Your task to perform on an android device: stop showing notifications on the lock screen Image 0: 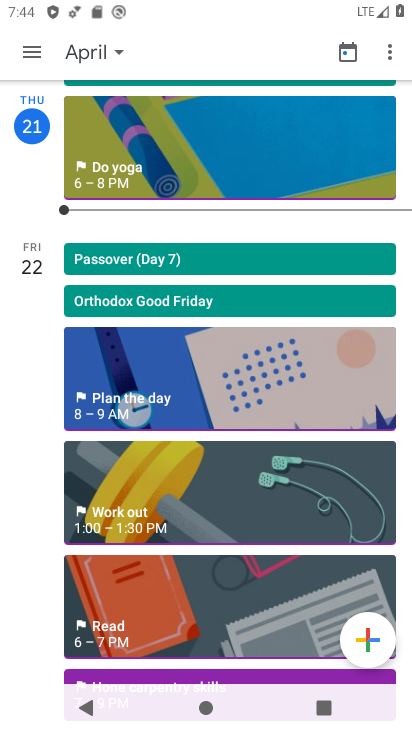
Step 0: press home button
Your task to perform on an android device: stop showing notifications on the lock screen Image 1: 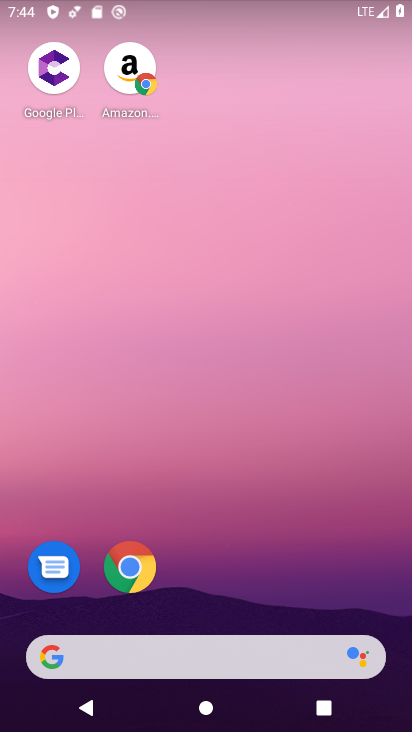
Step 1: drag from (253, 560) to (323, 75)
Your task to perform on an android device: stop showing notifications on the lock screen Image 2: 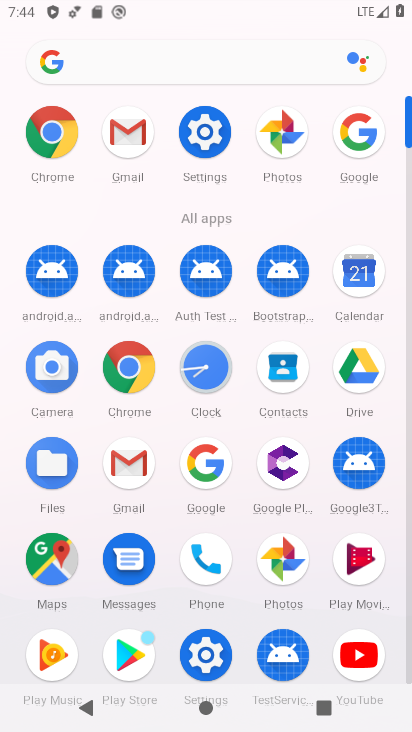
Step 2: click (204, 130)
Your task to perform on an android device: stop showing notifications on the lock screen Image 3: 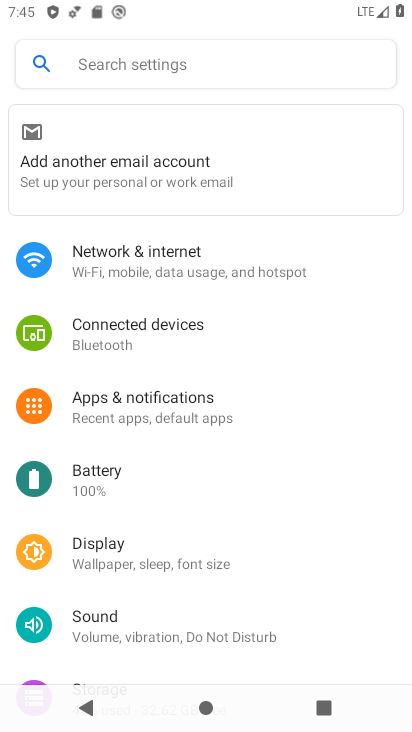
Step 3: click (178, 403)
Your task to perform on an android device: stop showing notifications on the lock screen Image 4: 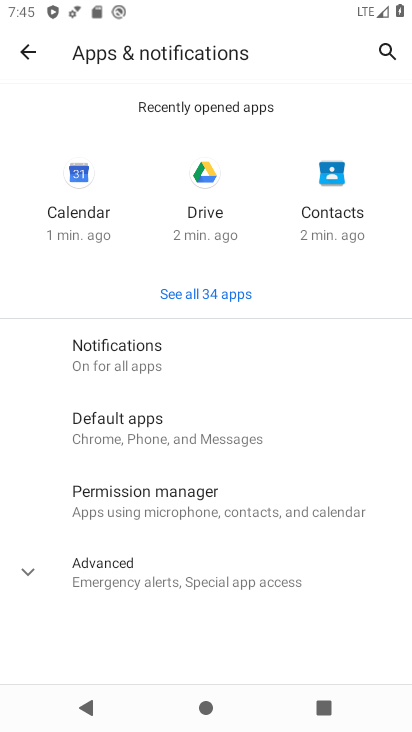
Step 4: click (141, 346)
Your task to perform on an android device: stop showing notifications on the lock screen Image 5: 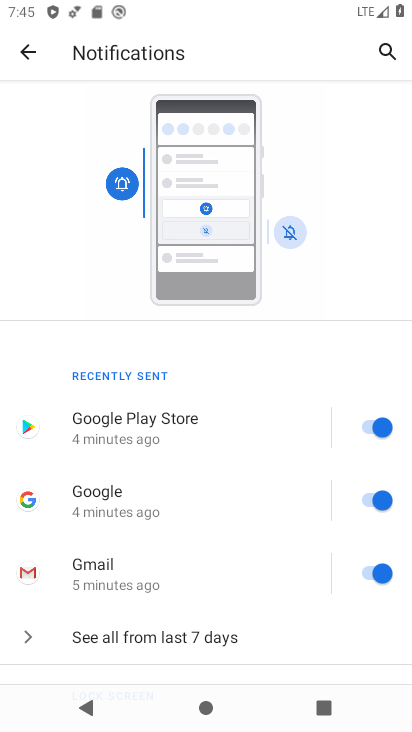
Step 5: drag from (205, 588) to (269, 347)
Your task to perform on an android device: stop showing notifications on the lock screen Image 6: 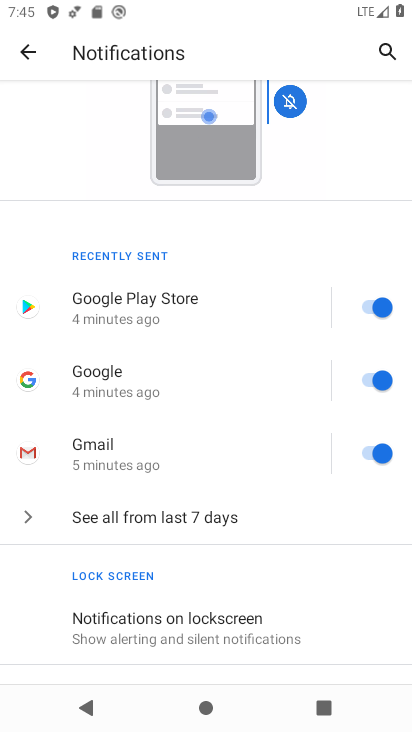
Step 6: click (202, 624)
Your task to perform on an android device: stop showing notifications on the lock screen Image 7: 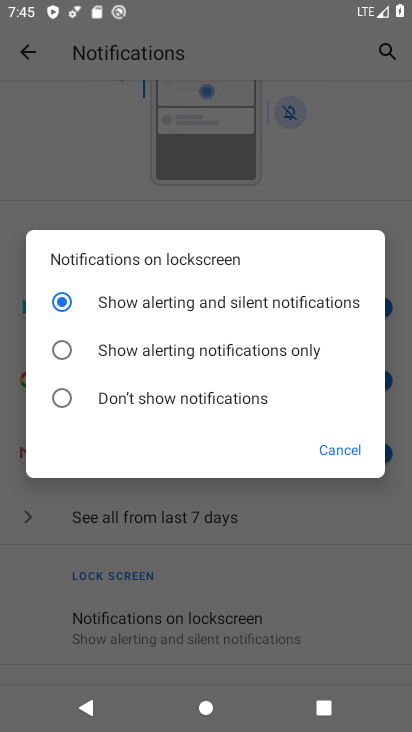
Step 7: click (63, 395)
Your task to perform on an android device: stop showing notifications on the lock screen Image 8: 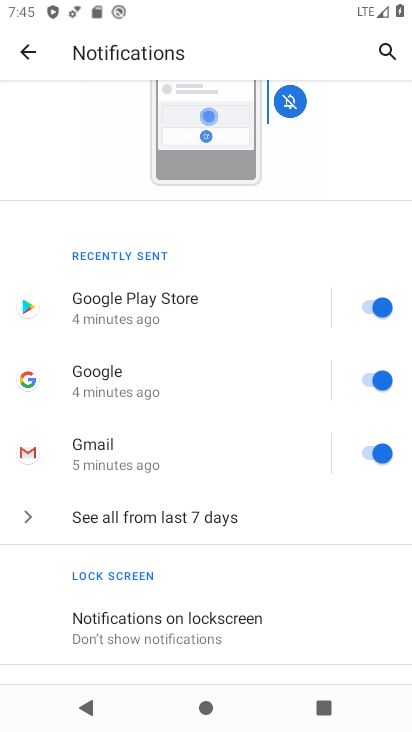
Step 8: task complete